Your task to perform on an android device: Go to Google Image 0: 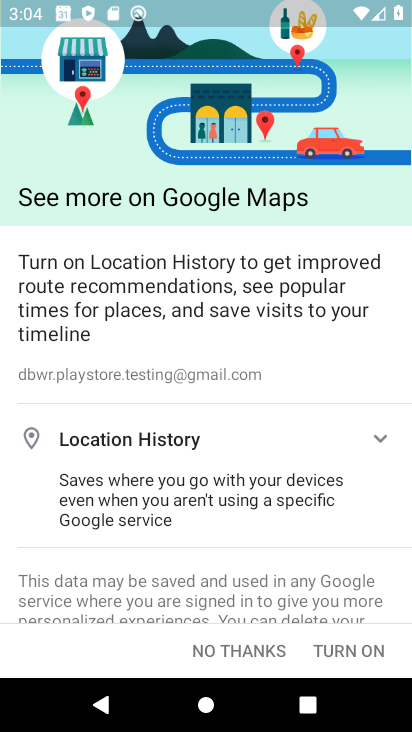
Step 0: press home button
Your task to perform on an android device: Go to Google Image 1: 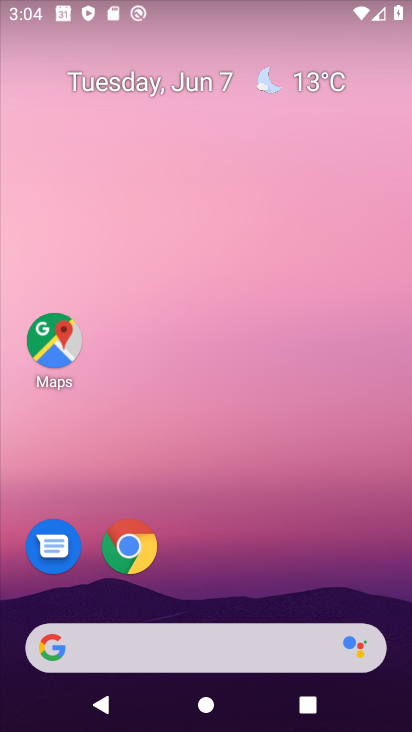
Step 1: drag from (161, 598) to (181, 260)
Your task to perform on an android device: Go to Google Image 2: 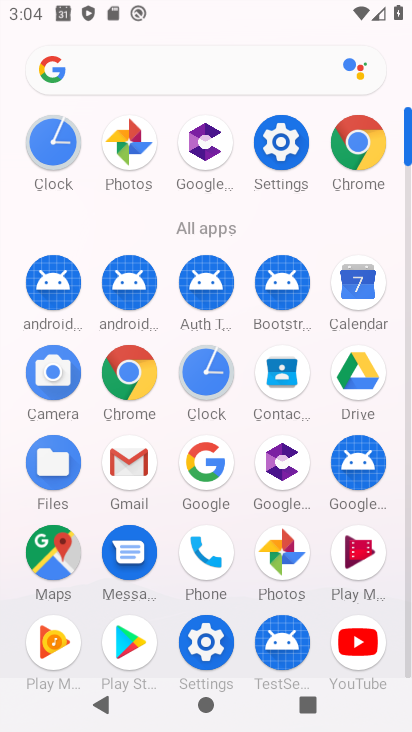
Step 2: click (204, 466)
Your task to perform on an android device: Go to Google Image 3: 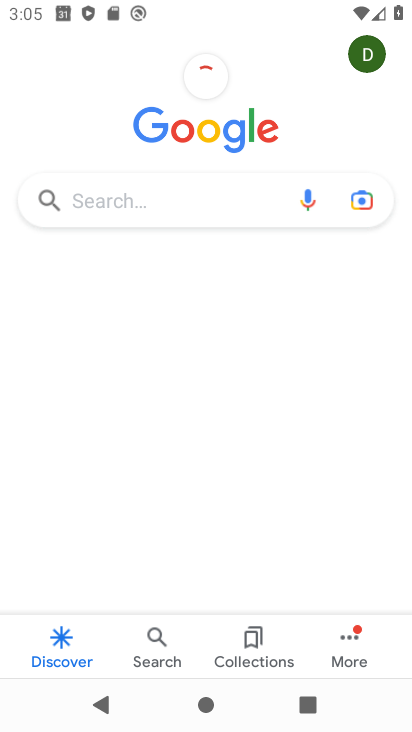
Step 3: task complete